Your task to perform on an android device: Toggle the flashlight Image 0: 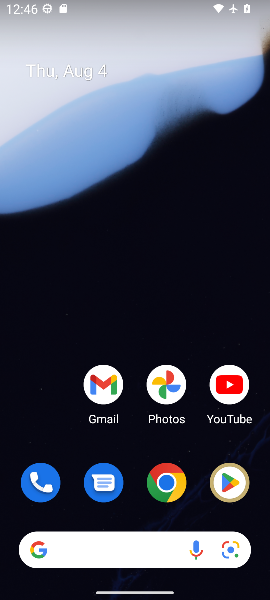
Step 0: click (176, 473)
Your task to perform on an android device: Toggle the flashlight Image 1: 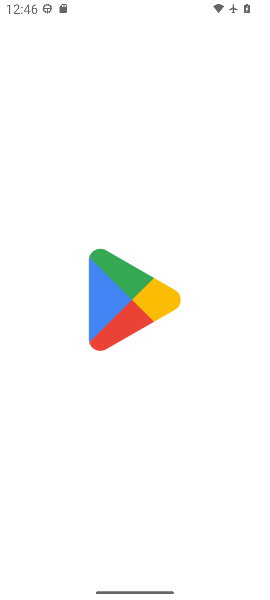
Step 1: click (162, 483)
Your task to perform on an android device: Toggle the flashlight Image 2: 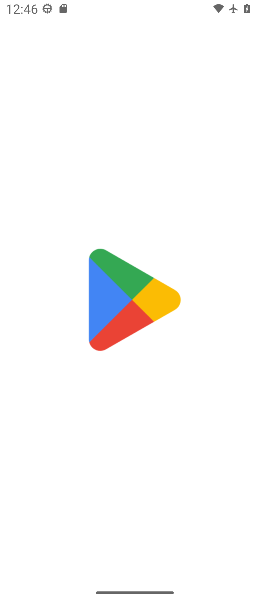
Step 2: press home button
Your task to perform on an android device: Toggle the flashlight Image 3: 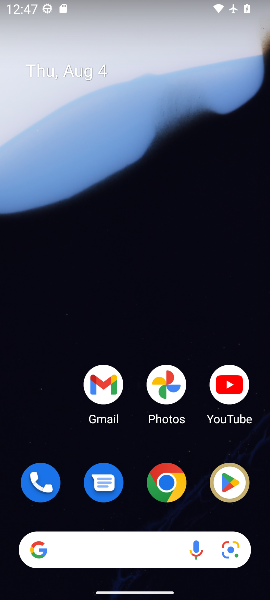
Step 3: drag from (134, 446) to (129, 189)
Your task to perform on an android device: Toggle the flashlight Image 4: 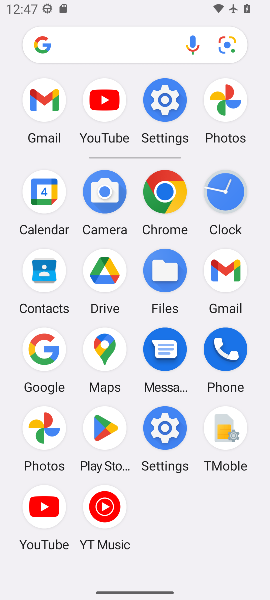
Step 4: click (159, 111)
Your task to perform on an android device: Toggle the flashlight Image 5: 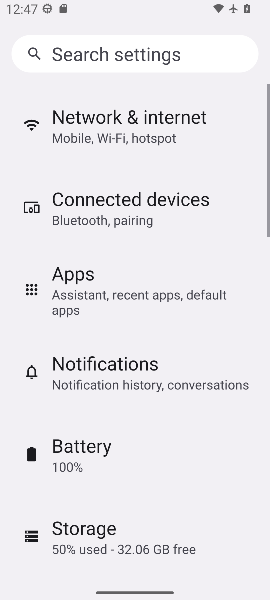
Step 5: task complete